Your task to perform on an android device: Go to Wikipedia Image 0: 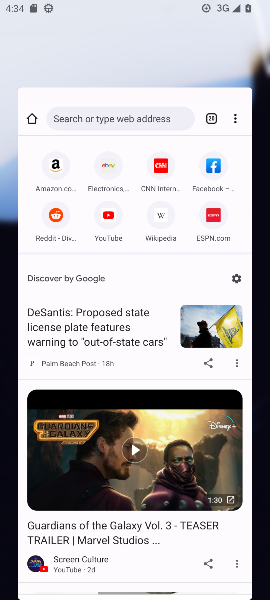
Step 0: click (222, 441)
Your task to perform on an android device: Go to Wikipedia Image 1: 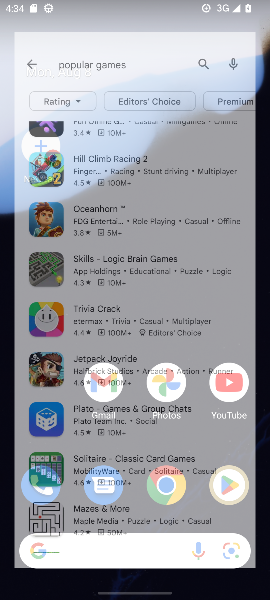
Step 1: click (124, 78)
Your task to perform on an android device: Go to Wikipedia Image 2: 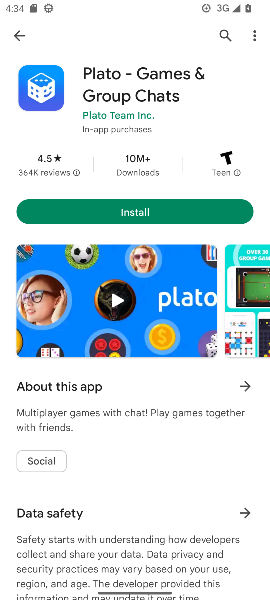
Step 2: click (10, 37)
Your task to perform on an android device: Go to Wikipedia Image 3: 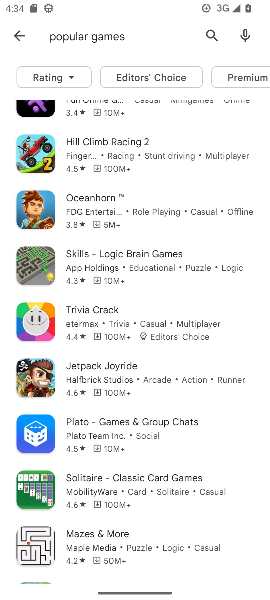
Step 3: click (20, 32)
Your task to perform on an android device: Go to Wikipedia Image 4: 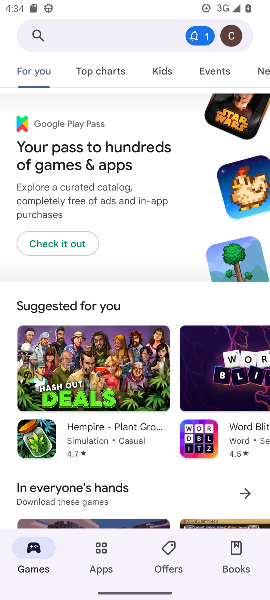
Step 4: press back button
Your task to perform on an android device: Go to Wikipedia Image 5: 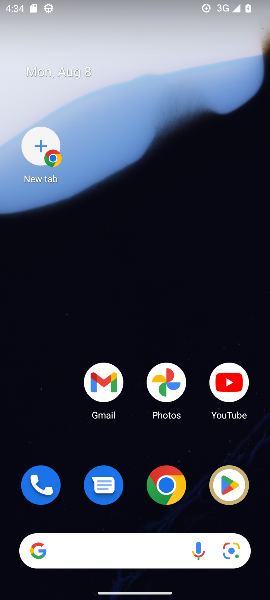
Step 5: drag from (188, 450) to (190, 48)
Your task to perform on an android device: Go to Wikipedia Image 6: 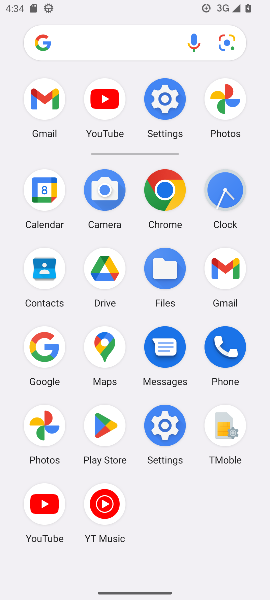
Step 6: click (158, 187)
Your task to perform on an android device: Go to Wikipedia Image 7: 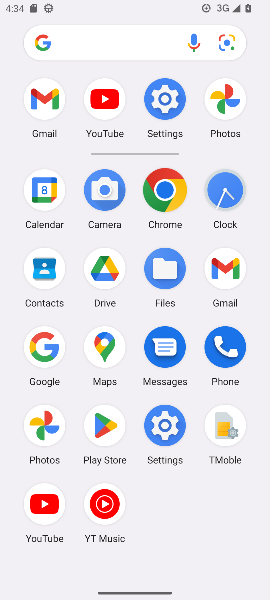
Step 7: click (158, 187)
Your task to perform on an android device: Go to Wikipedia Image 8: 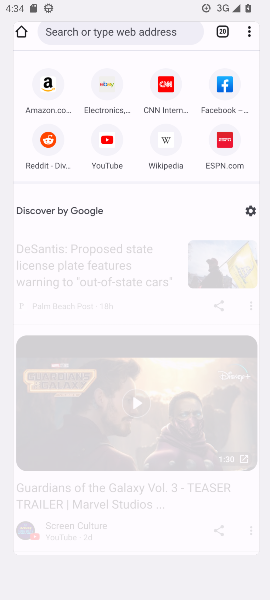
Step 8: click (161, 189)
Your task to perform on an android device: Go to Wikipedia Image 9: 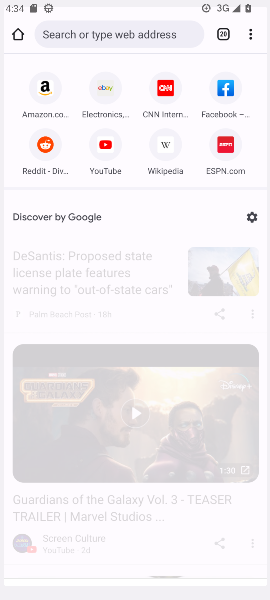
Step 9: click (162, 189)
Your task to perform on an android device: Go to Wikipedia Image 10: 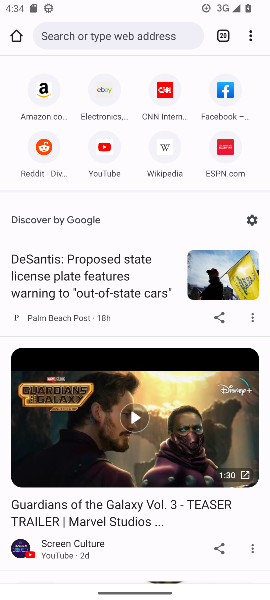
Step 10: drag from (248, 36) to (141, 324)
Your task to perform on an android device: Go to Wikipedia Image 11: 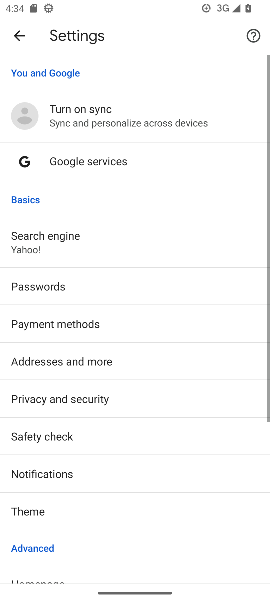
Step 11: click (23, 142)
Your task to perform on an android device: Go to Wikipedia Image 12: 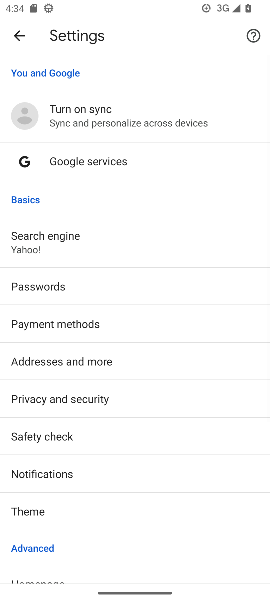
Step 12: click (12, 25)
Your task to perform on an android device: Go to Wikipedia Image 13: 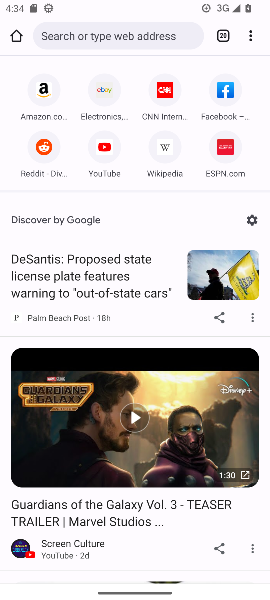
Step 13: click (157, 158)
Your task to perform on an android device: Go to Wikipedia Image 14: 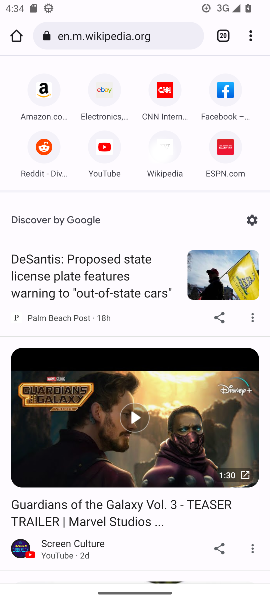
Step 14: click (156, 158)
Your task to perform on an android device: Go to Wikipedia Image 15: 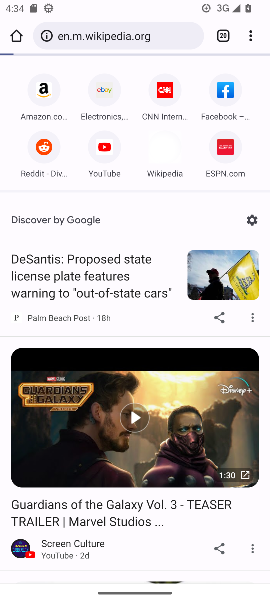
Step 15: click (158, 156)
Your task to perform on an android device: Go to Wikipedia Image 16: 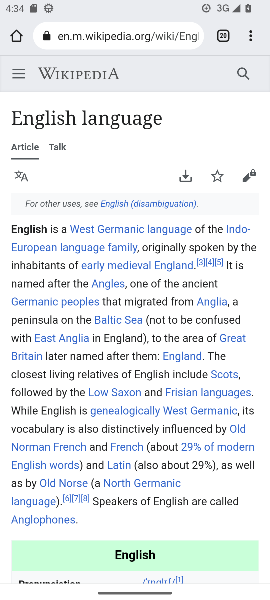
Step 16: task complete